Your task to perform on an android device: toggle priority inbox in the gmail app Image 0: 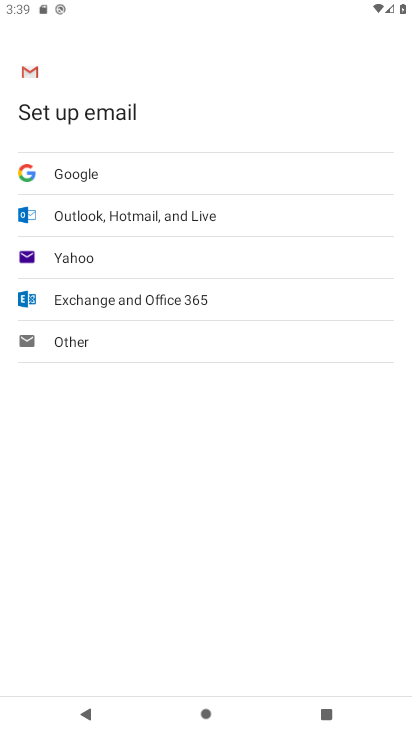
Step 0: press home button
Your task to perform on an android device: toggle priority inbox in the gmail app Image 1: 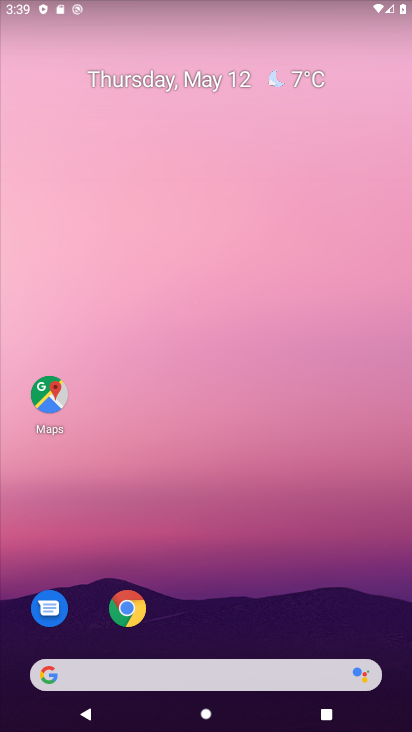
Step 1: drag from (264, 587) to (211, 194)
Your task to perform on an android device: toggle priority inbox in the gmail app Image 2: 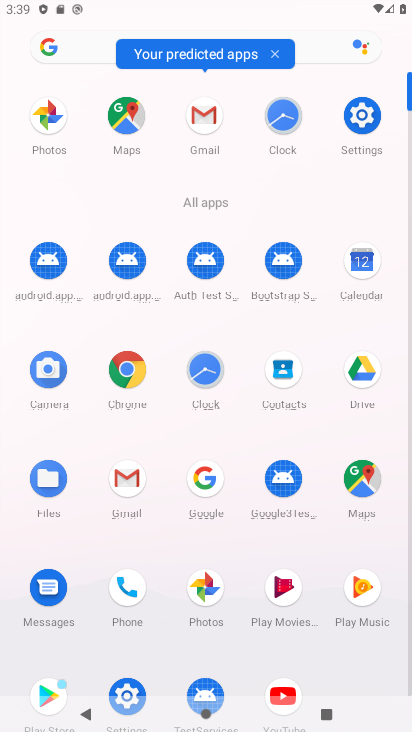
Step 2: click (218, 119)
Your task to perform on an android device: toggle priority inbox in the gmail app Image 3: 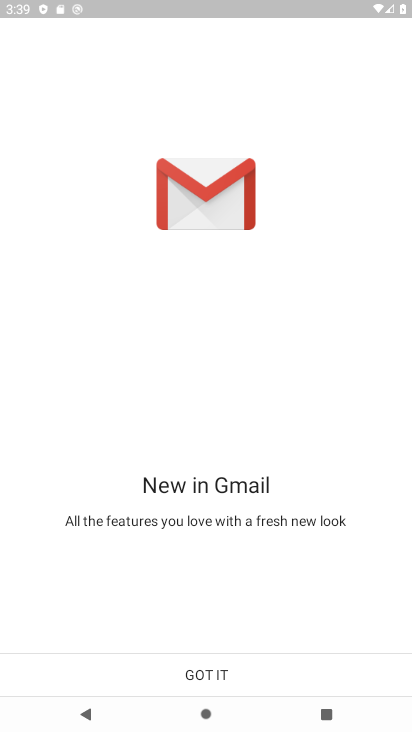
Step 3: click (244, 660)
Your task to perform on an android device: toggle priority inbox in the gmail app Image 4: 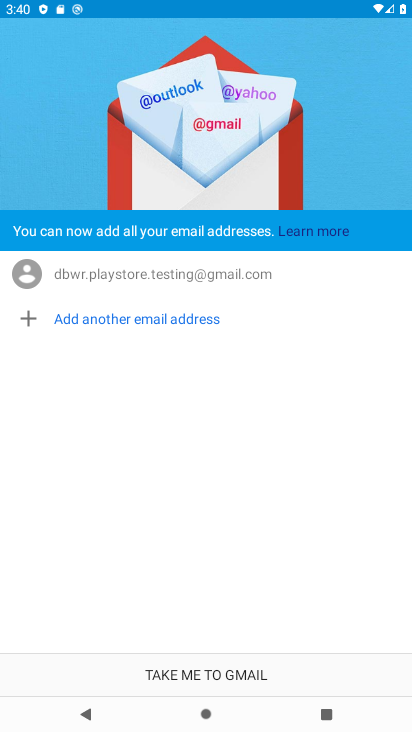
Step 4: click (269, 671)
Your task to perform on an android device: toggle priority inbox in the gmail app Image 5: 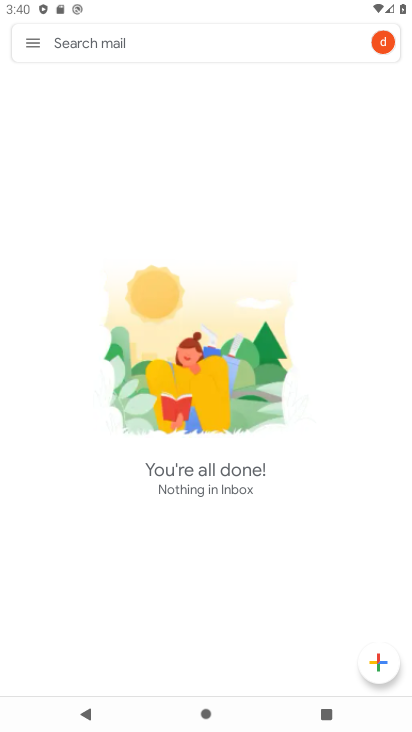
Step 5: click (18, 52)
Your task to perform on an android device: toggle priority inbox in the gmail app Image 6: 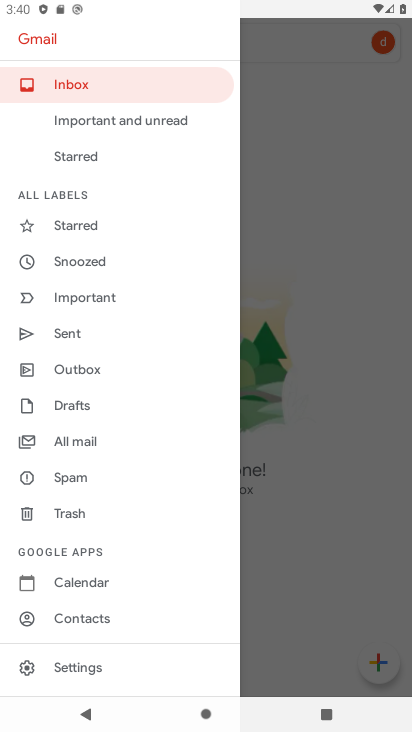
Step 6: drag from (80, 481) to (77, 215)
Your task to perform on an android device: toggle priority inbox in the gmail app Image 7: 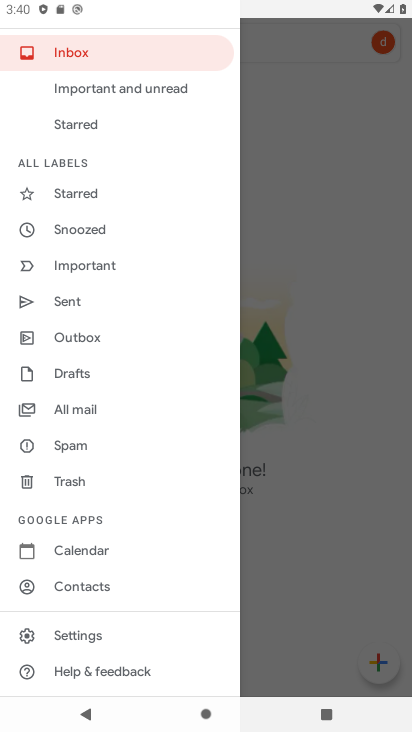
Step 7: click (115, 630)
Your task to perform on an android device: toggle priority inbox in the gmail app Image 8: 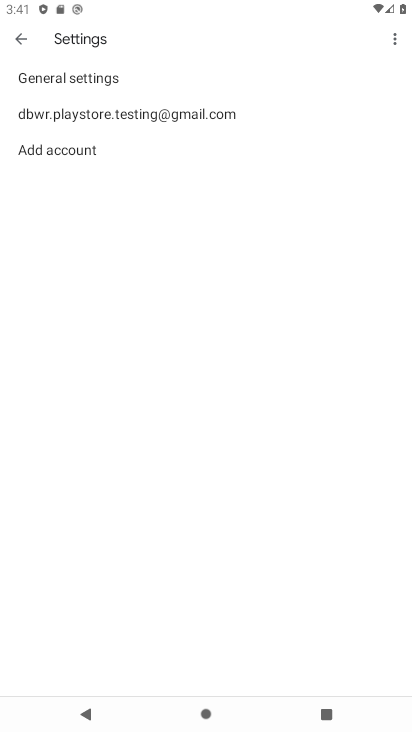
Step 8: click (30, 85)
Your task to perform on an android device: toggle priority inbox in the gmail app Image 9: 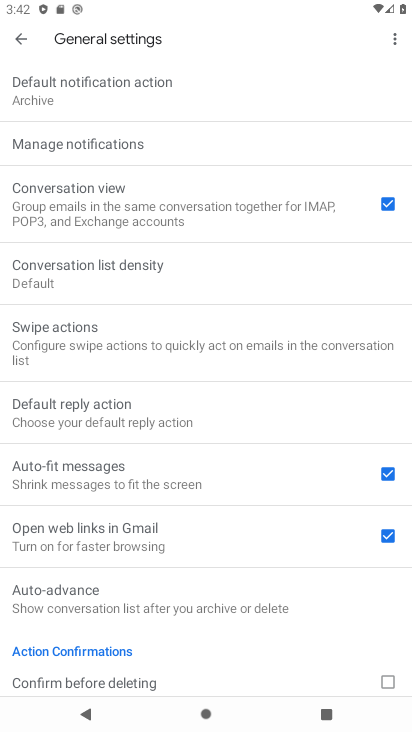
Step 9: task complete